Your task to perform on an android device: allow cookies in the chrome app Image 0: 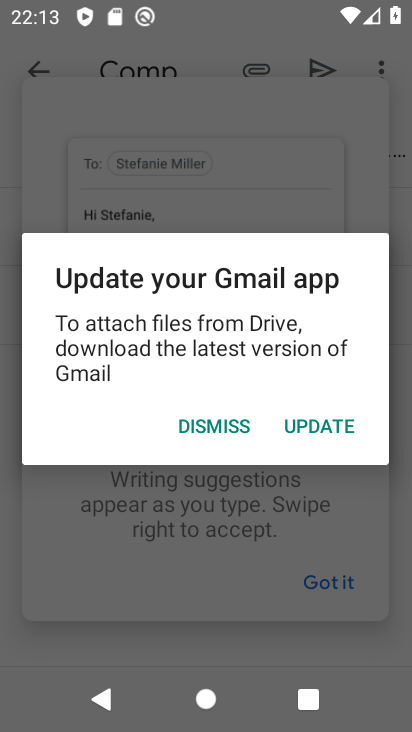
Step 0: press home button
Your task to perform on an android device: allow cookies in the chrome app Image 1: 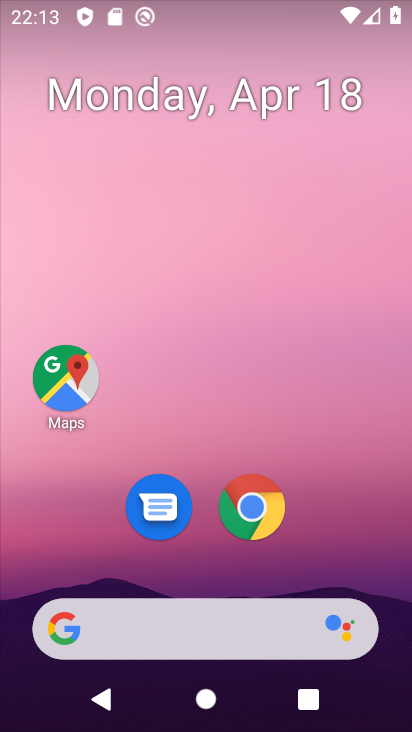
Step 1: click (255, 511)
Your task to perform on an android device: allow cookies in the chrome app Image 2: 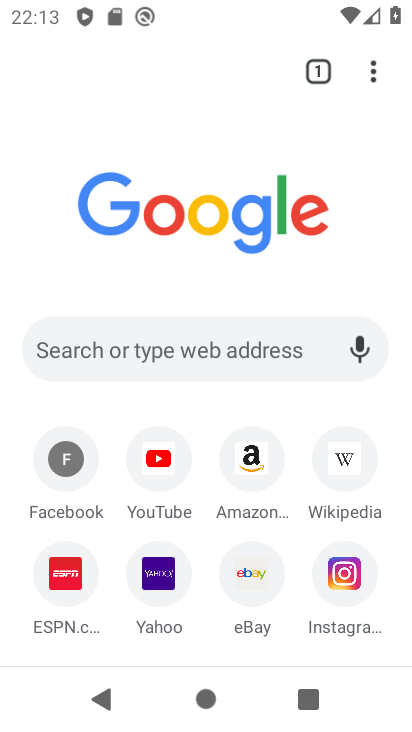
Step 2: click (375, 69)
Your task to perform on an android device: allow cookies in the chrome app Image 3: 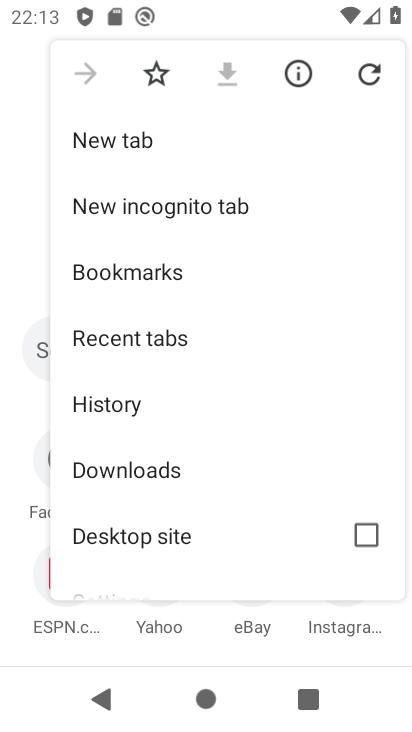
Step 3: drag from (244, 459) to (255, 184)
Your task to perform on an android device: allow cookies in the chrome app Image 4: 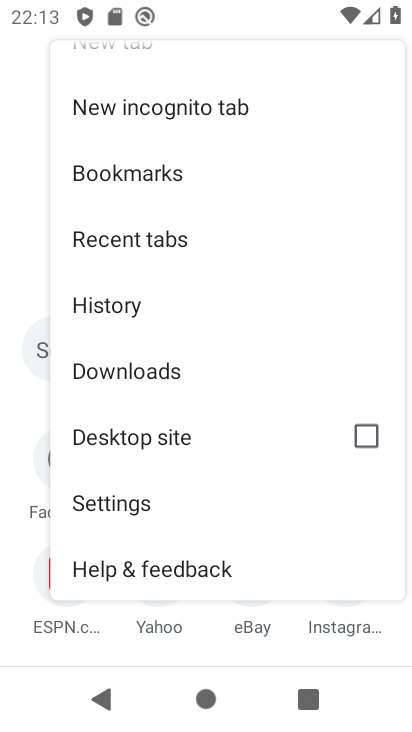
Step 4: click (143, 498)
Your task to perform on an android device: allow cookies in the chrome app Image 5: 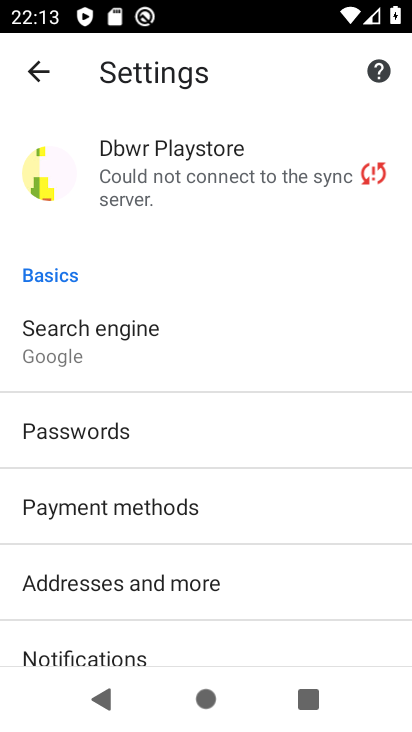
Step 5: drag from (243, 562) to (296, 232)
Your task to perform on an android device: allow cookies in the chrome app Image 6: 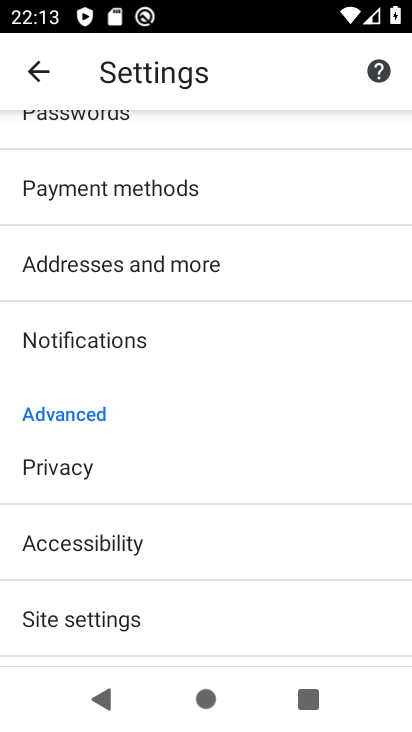
Step 6: click (175, 629)
Your task to perform on an android device: allow cookies in the chrome app Image 7: 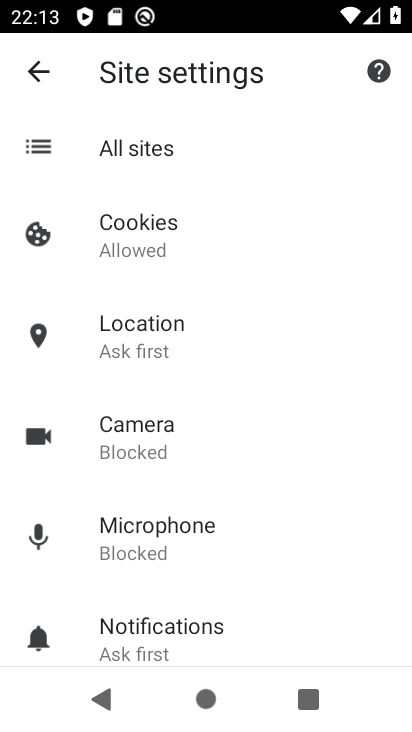
Step 7: click (190, 231)
Your task to perform on an android device: allow cookies in the chrome app Image 8: 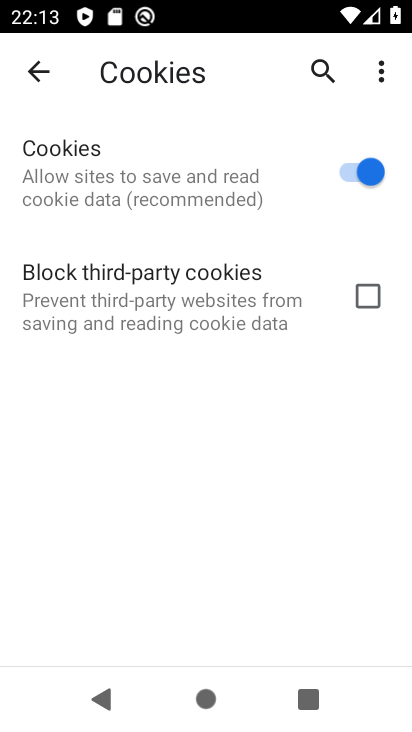
Step 8: task complete